Your task to perform on an android device: Search for Mexican restaurants on Maps Image 0: 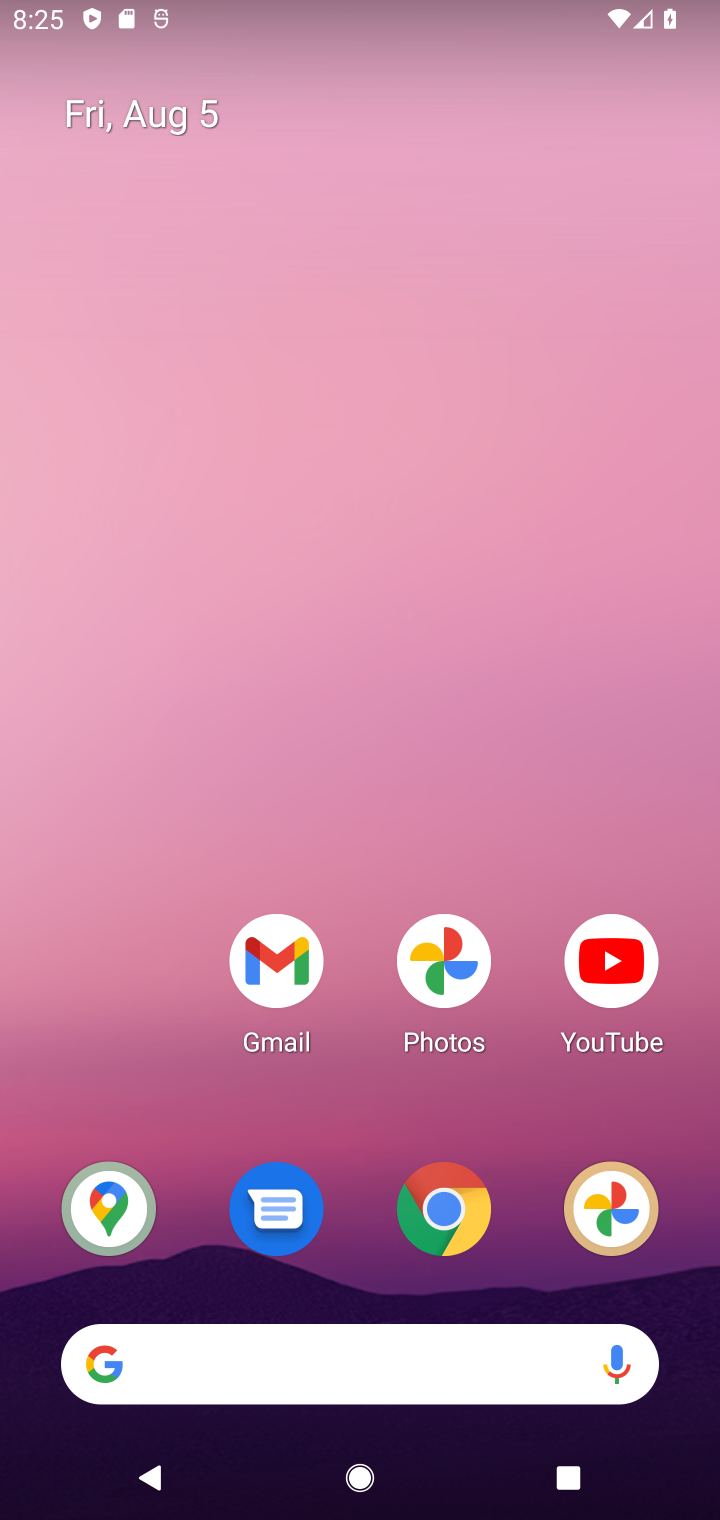
Step 0: drag from (531, 1123) to (451, 129)
Your task to perform on an android device: Search for Mexican restaurants on Maps Image 1: 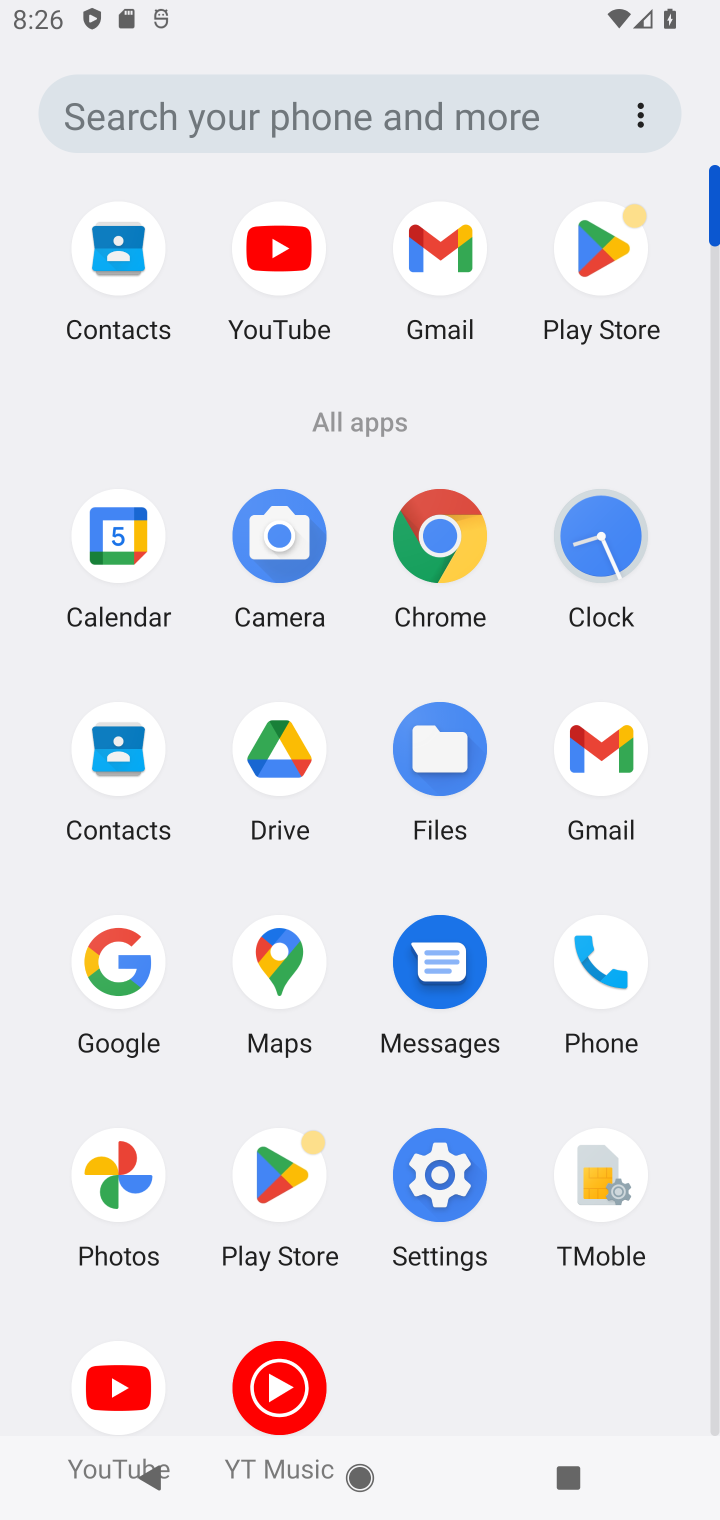
Step 1: click (261, 1011)
Your task to perform on an android device: Search for Mexican restaurants on Maps Image 2: 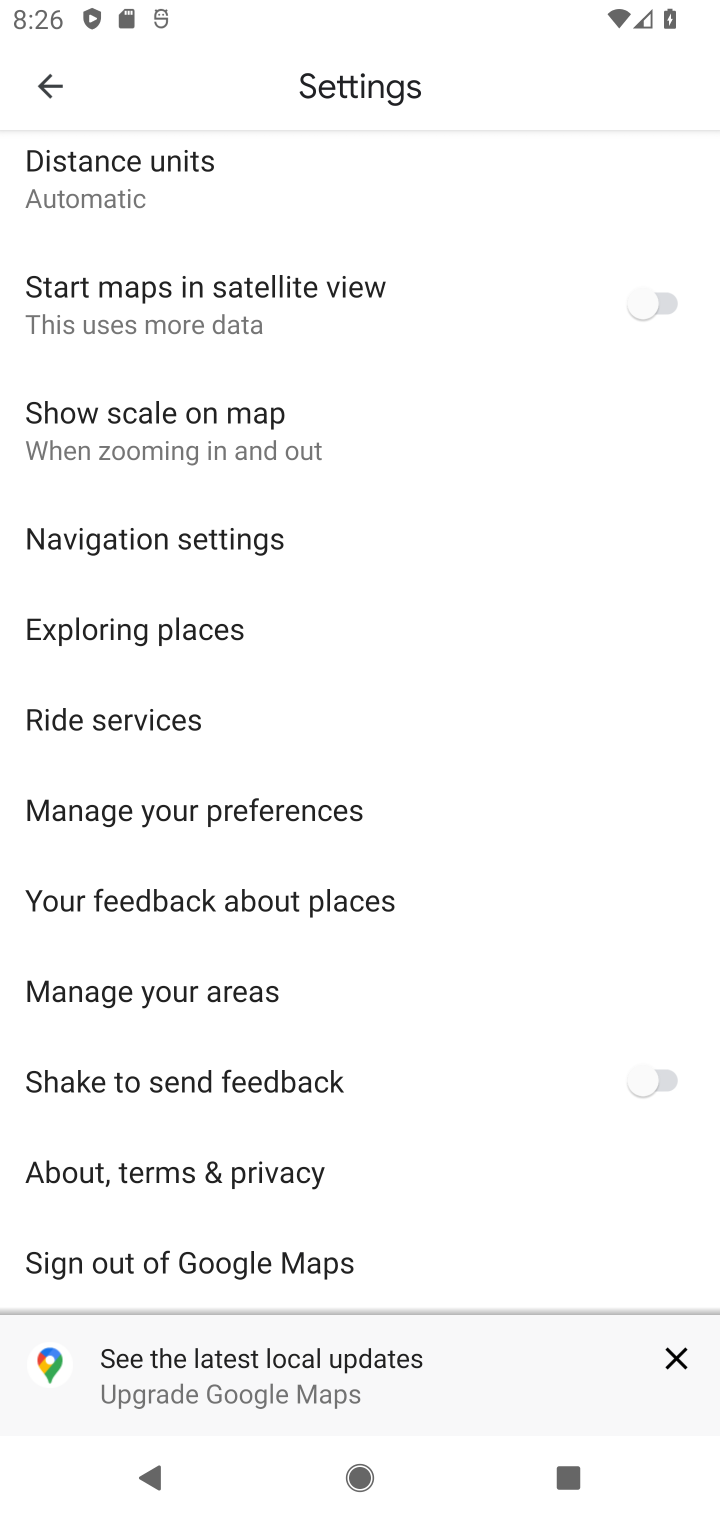
Step 2: click (58, 94)
Your task to perform on an android device: Search for Mexican restaurants on Maps Image 3: 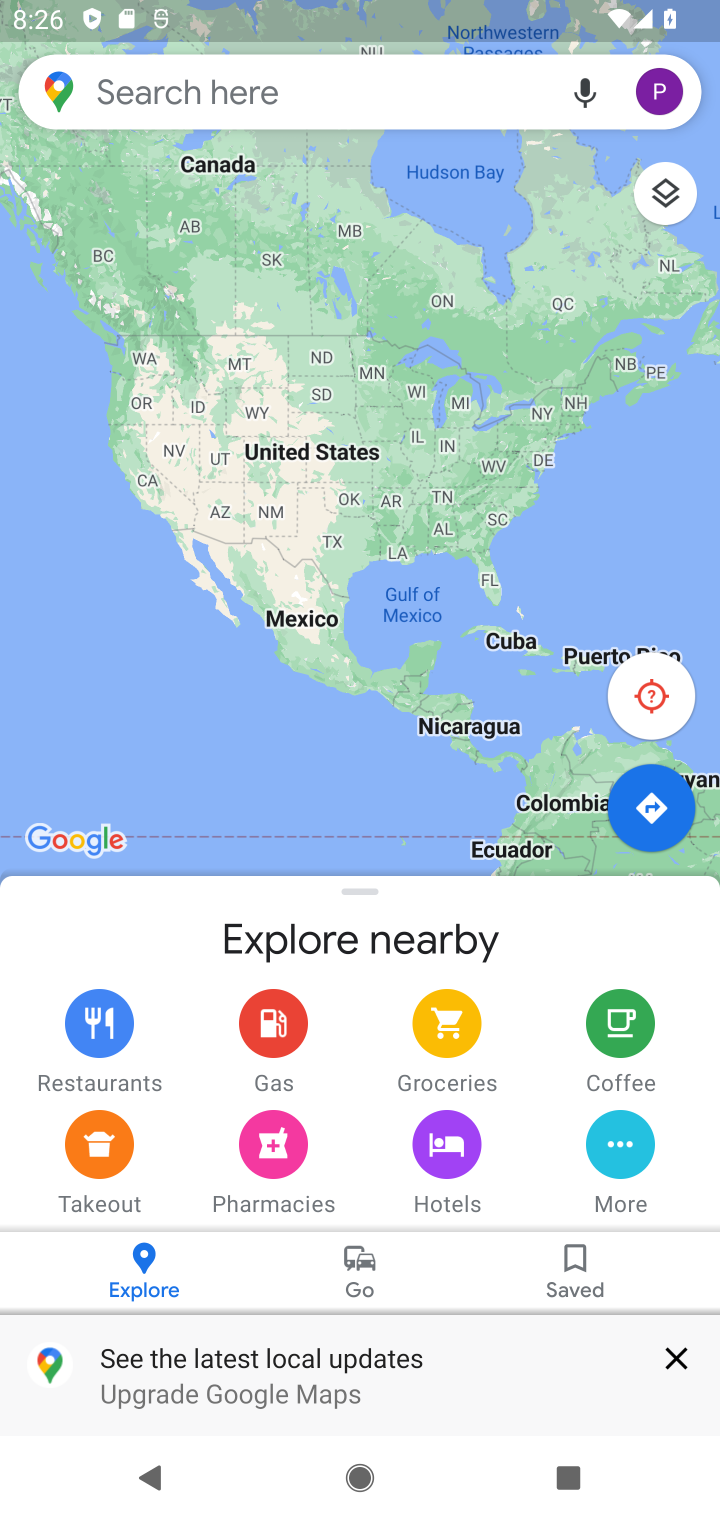
Step 3: click (390, 59)
Your task to perform on an android device: Search for Mexican restaurants on Maps Image 4: 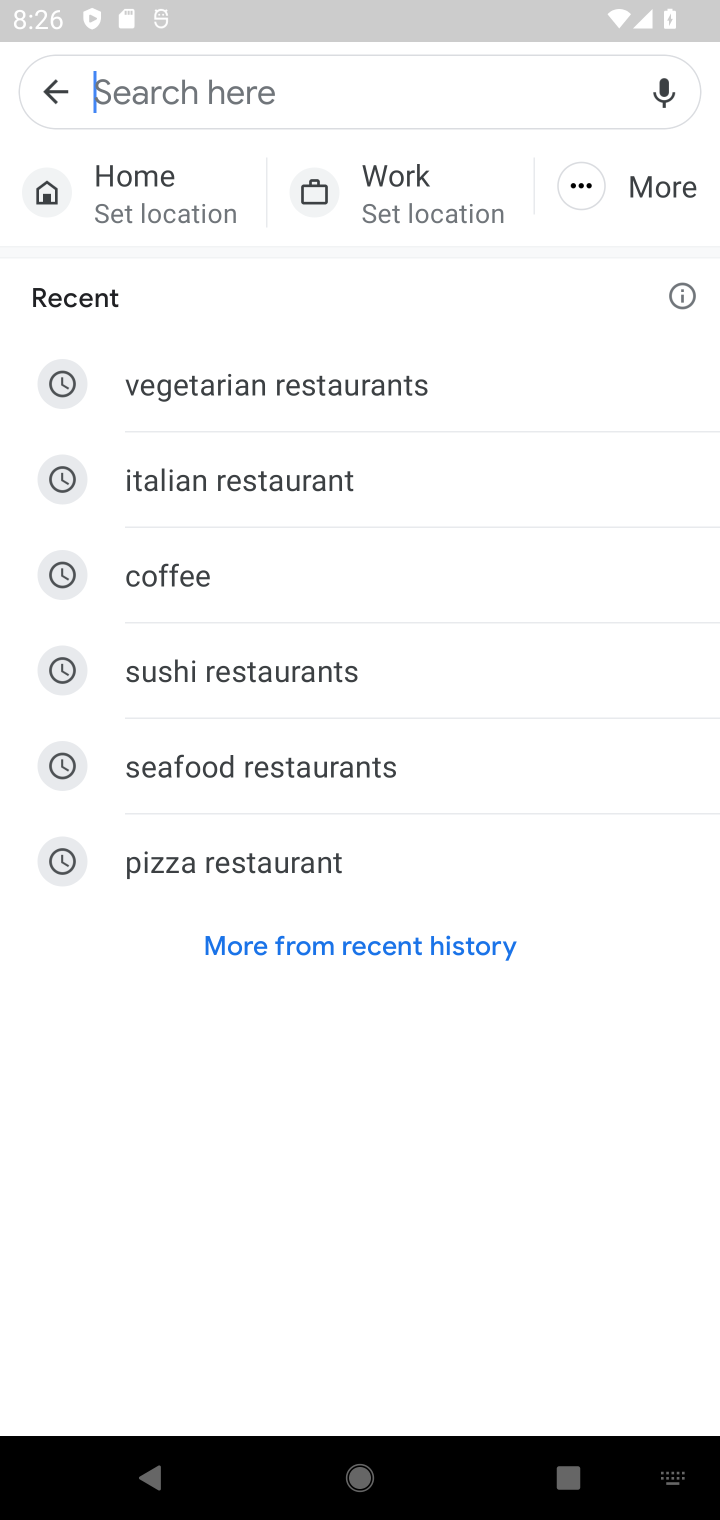
Step 4: type "Mexican restaurants"
Your task to perform on an android device: Search for Mexican restaurants on Maps Image 5: 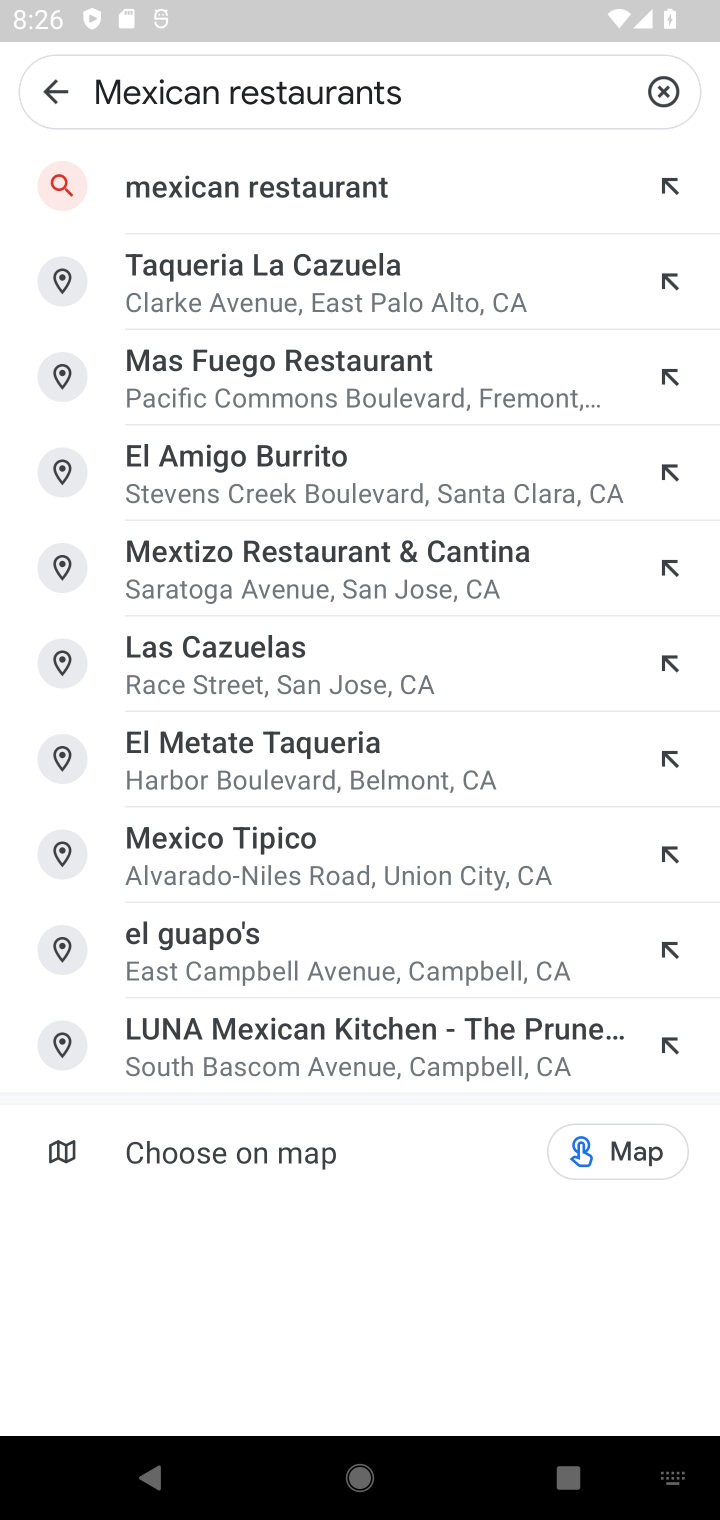
Step 5: click (386, 211)
Your task to perform on an android device: Search for Mexican restaurants on Maps Image 6: 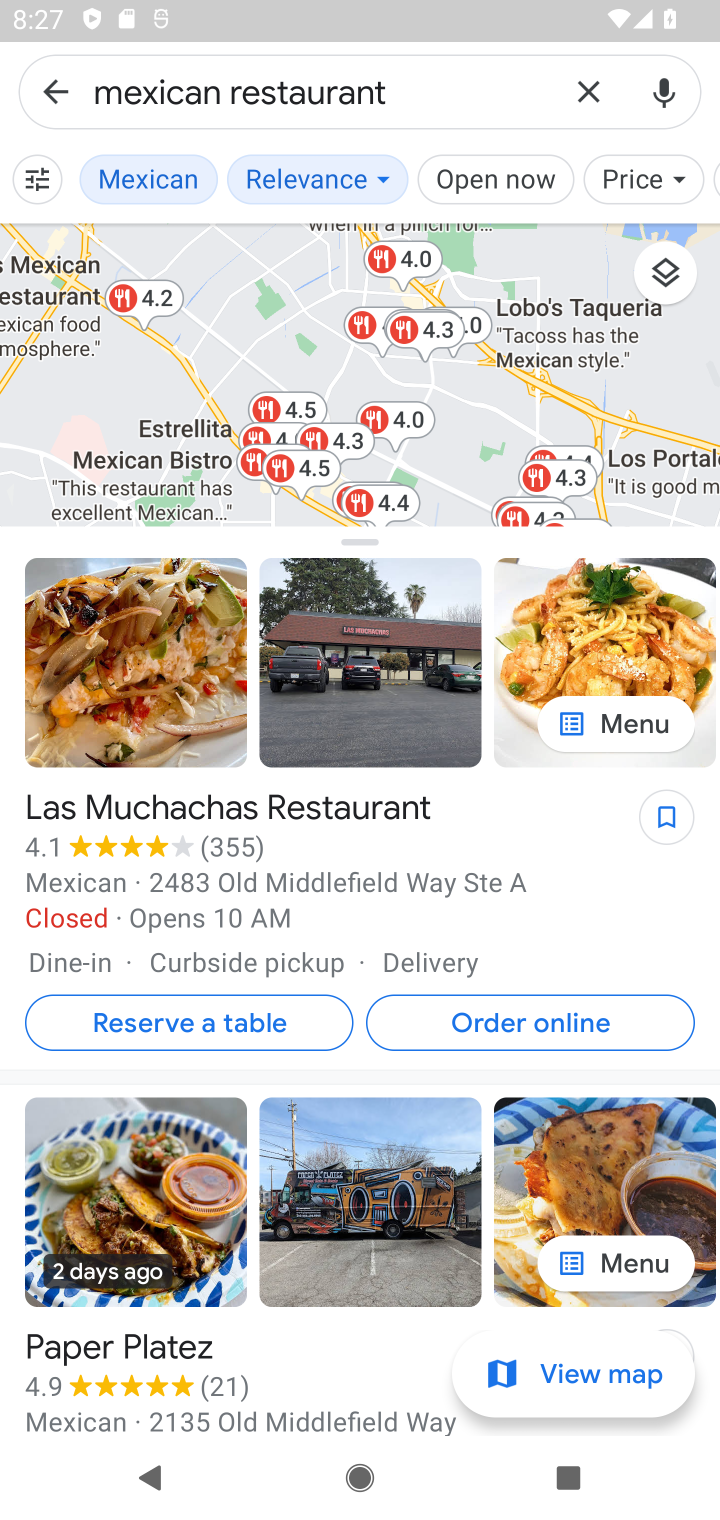
Step 6: task complete